Your task to perform on an android device: snooze an email in the gmail app Image 0: 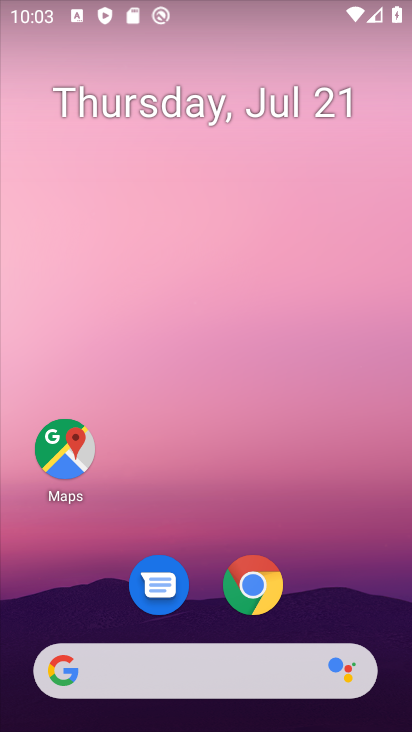
Step 0: drag from (311, 580) to (342, 62)
Your task to perform on an android device: snooze an email in the gmail app Image 1: 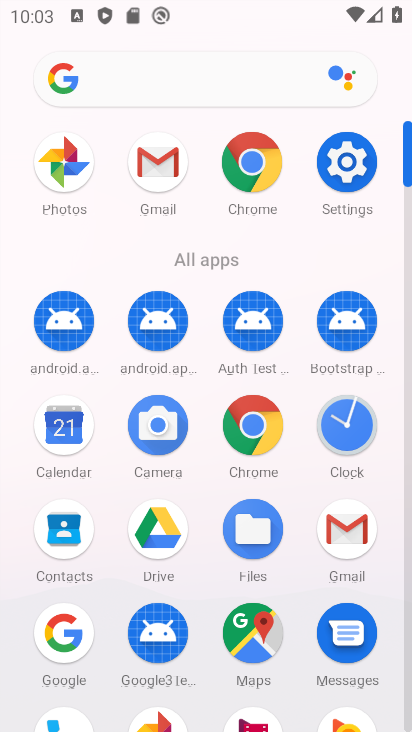
Step 1: click (163, 163)
Your task to perform on an android device: snooze an email in the gmail app Image 2: 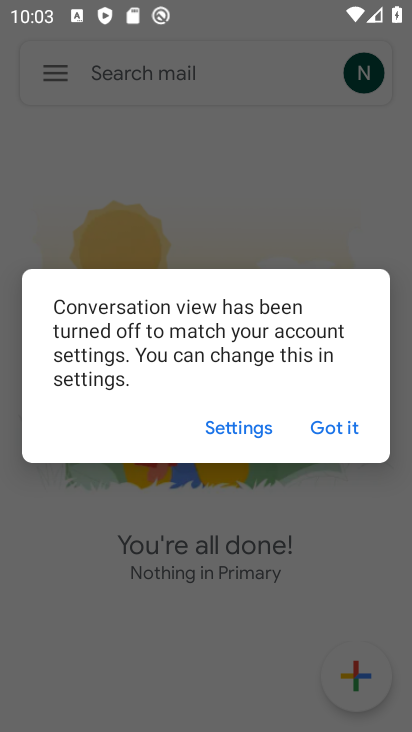
Step 2: click (336, 426)
Your task to perform on an android device: snooze an email in the gmail app Image 3: 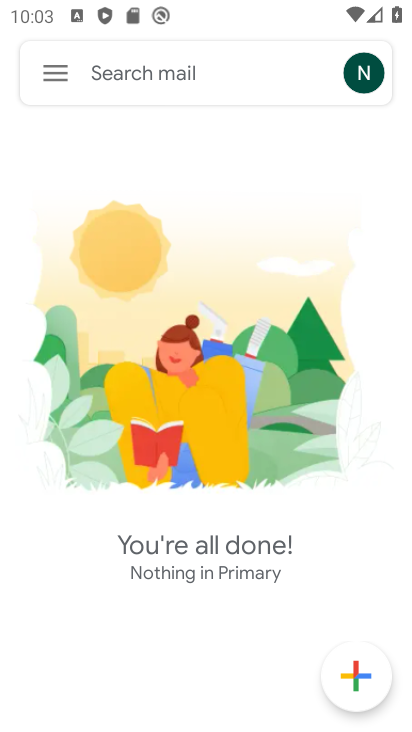
Step 3: click (60, 75)
Your task to perform on an android device: snooze an email in the gmail app Image 4: 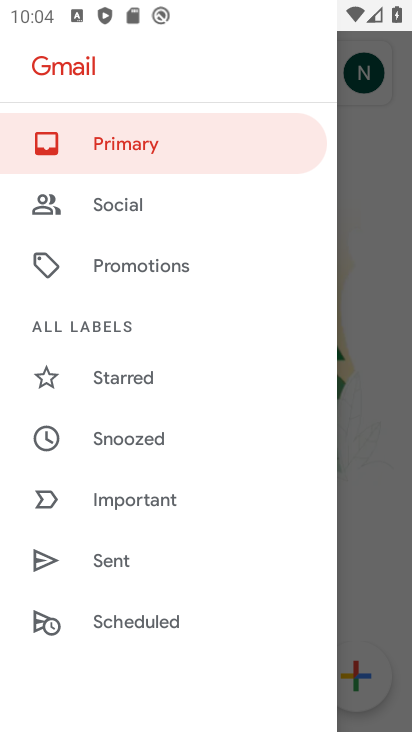
Step 4: drag from (158, 558) to (203, 146)
Your task to perform on an android device: snooze an email in the gmail app Image 5: 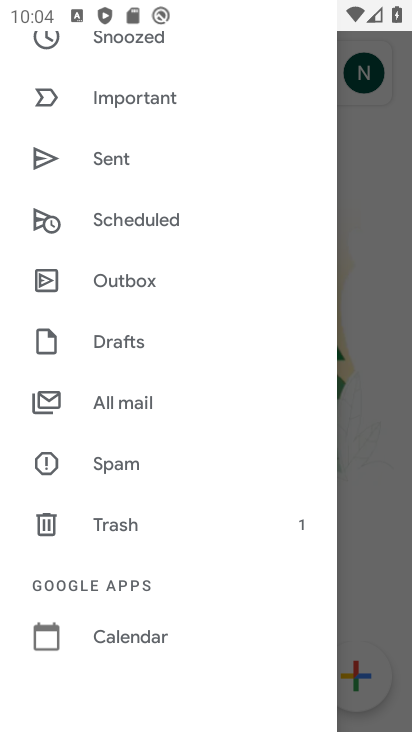
Step 5: click (140, 399)
Your task to perform on an android device: snooze an email in the gmail app Image 6: 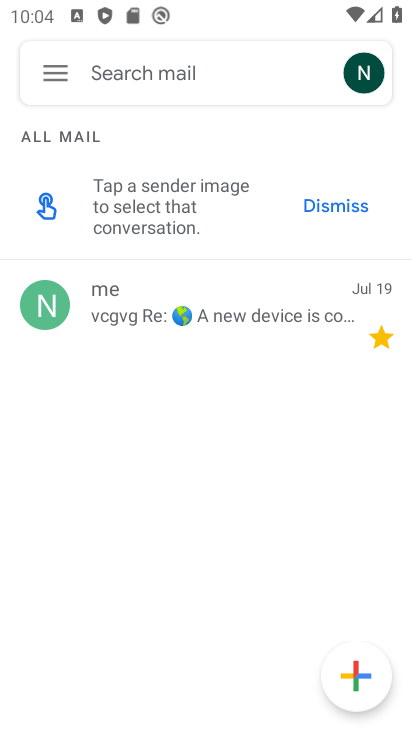
Step 6: click (232, 313)
Your task to perform on an android device: snooze an email in the gmail app Image 7: 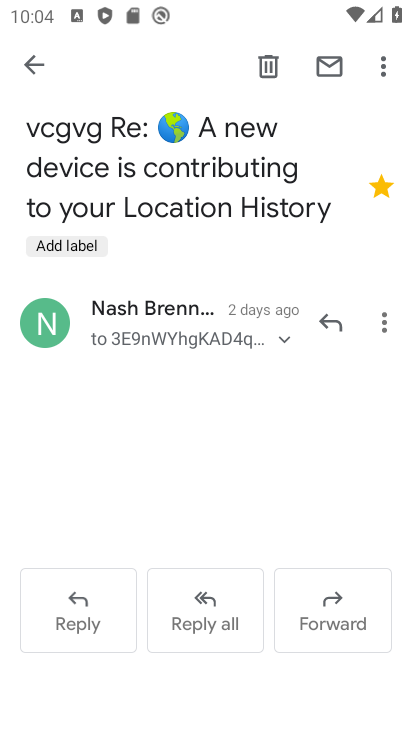
Step 7: click (383, 68)
Your task to perform on an android device: snooze an email in the gmail app Image 8: 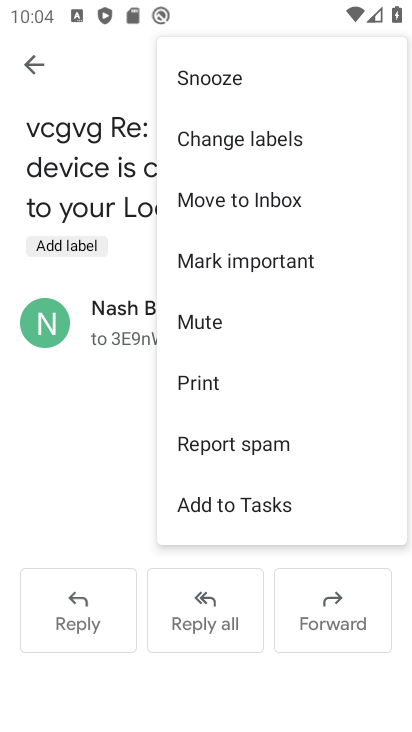
Step 8: click (239, 83)
Your task to perform on an android device: snooze an email in the gmail app Image 9: 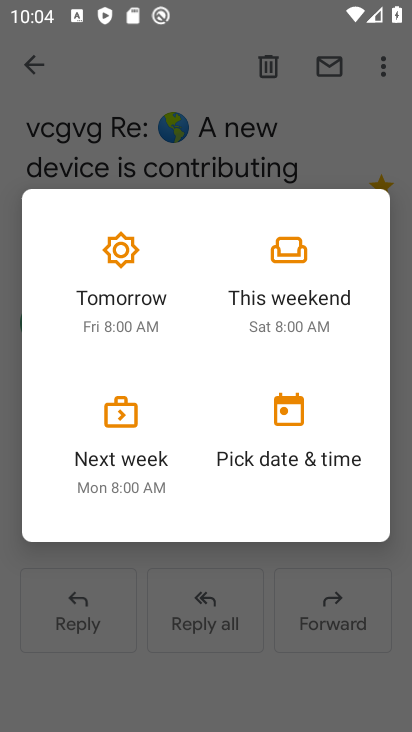
Step 9: click (131, 270)
Your task to perform on an android device: snooze an email in the gmail app Image 10: 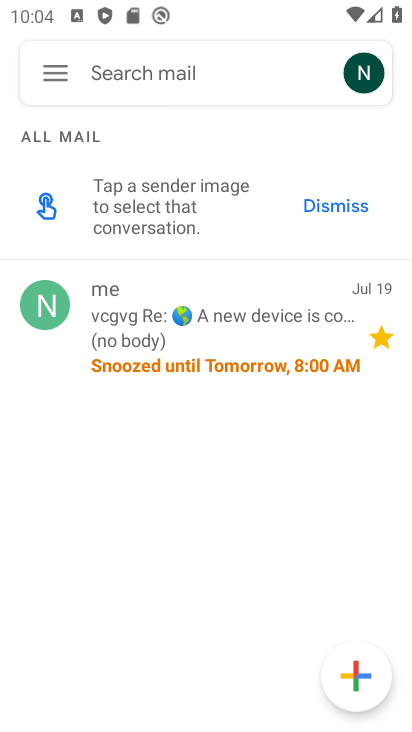
Step 10: task complete